Your task to perform on an android device: Go to notification settings Image 0: 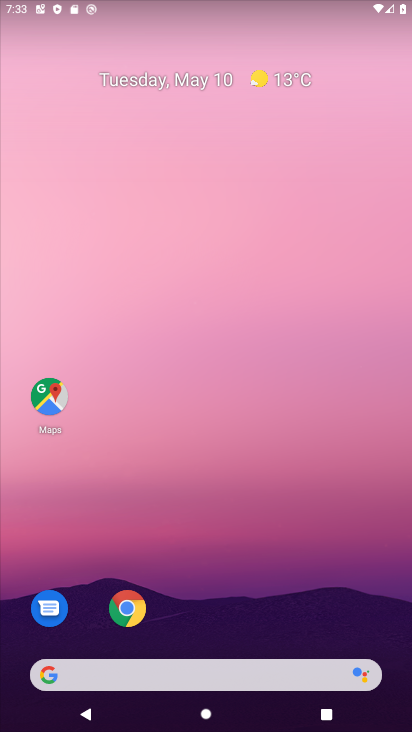
Step 0: drag from (254, 588) to (281, 281)
Your task to perform on an android device: Go to notification settings Image 1: 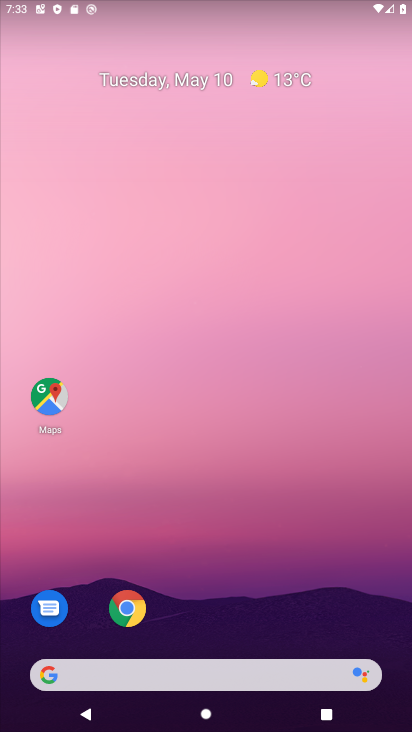
Step 1: drag from (226, 613) to (205, 430)
Your task to perform on an android device: Go to notification settings Image 2: 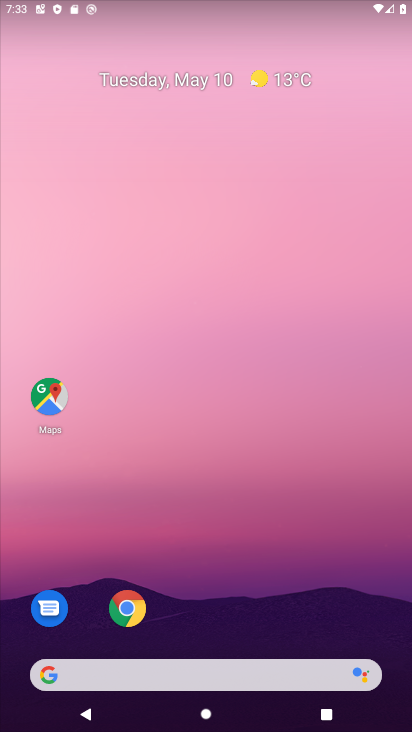
Step 2: drag from (278, 608) to (270, 478)
Your task to perform on an android device: Go to notification settings Image 3: 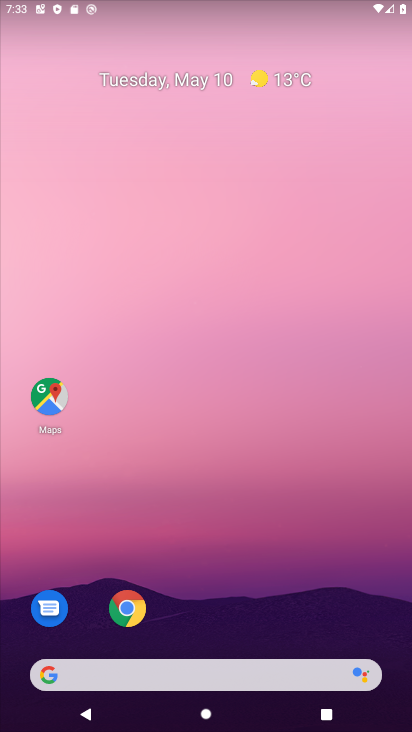
Step 3: drag from (255, 577) to (253, 249)
Your task to perform on an android device: Go to notification settings Image 4: 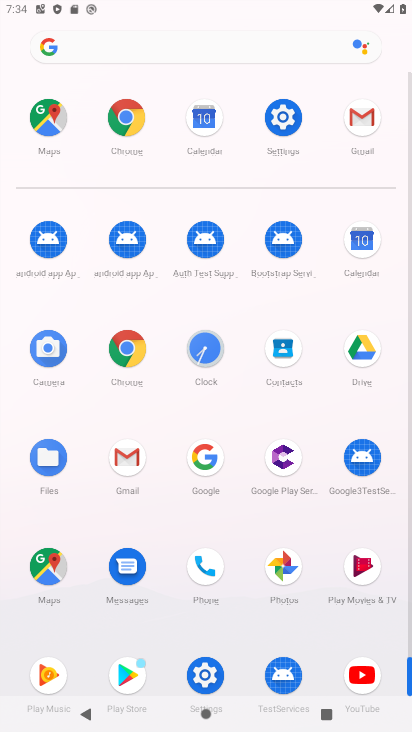
Step 4: click (200, 666)
Your task to perform on an android device: Go to notification settings Image 5: 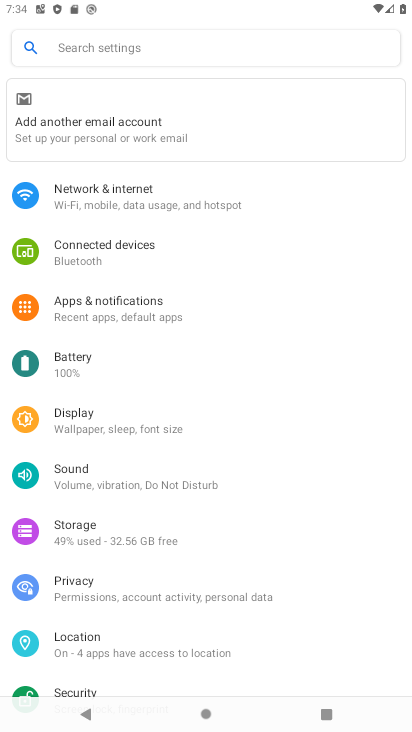
Step 5: click (115, 315)
Your task to perform on an android device: Go to notification settings Image 6: 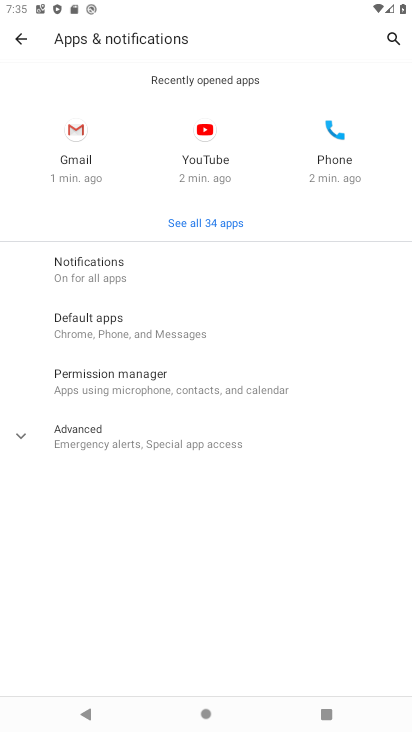
Step 6: click (129, 280)
Your task to perform on an android device: Go to notification settings Image 7: 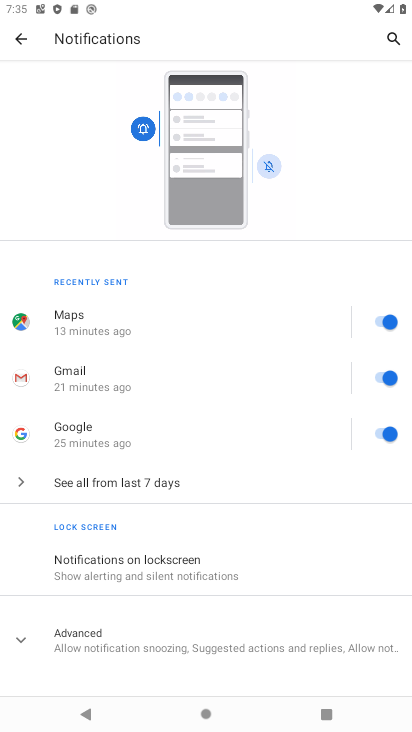
Step 7: task complete